Your task to perform on an android device: empty trash in google photos Image 0: 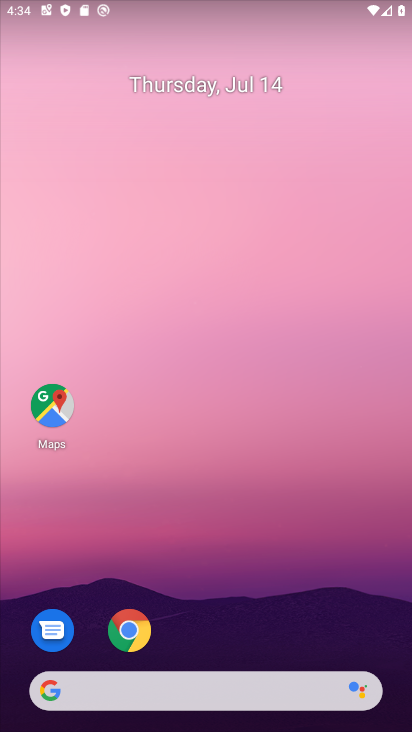
Step 0: drag from (323, 681) to (400, 5)
Your task to perform on an android device: empty trash in google photos Image 1: 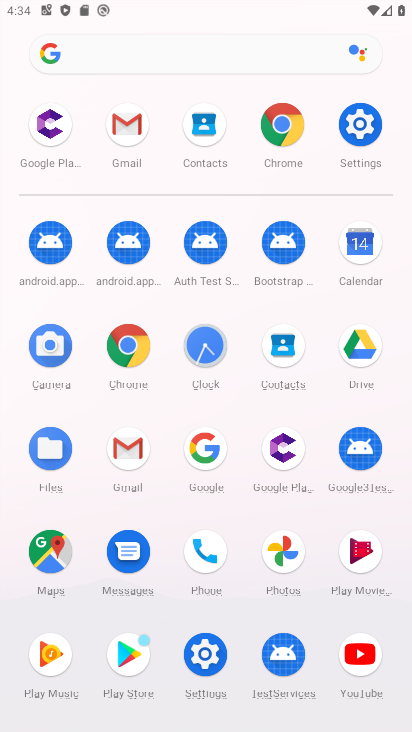
Step 1: click (288, 559)
Your task to perform on an android device: empty trash in google photos Image 2: 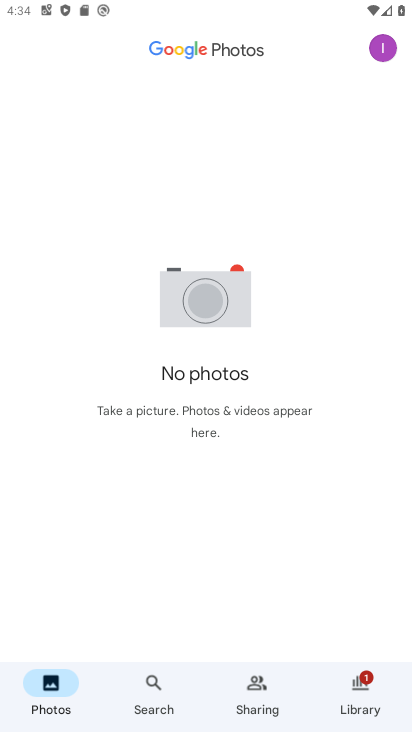
Step 2: click (389, 51)
Your task to perform on an android device: empty trash in google photos Image 3: 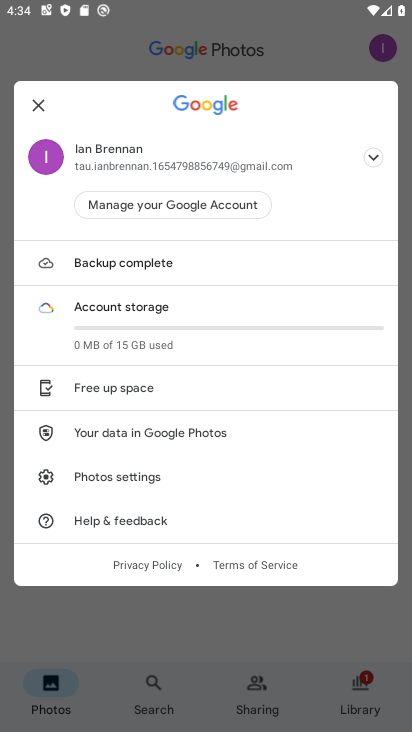
Step 3: click (211, 624)
Your task to perform on an android device: empty trash in google photos Image 4: 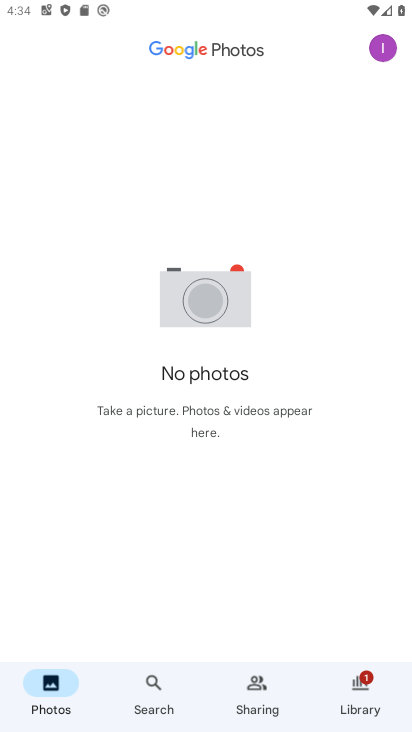
Step 4: click (246, 686)
Your task to perform on an android device: empty trash in google photos Image 5: 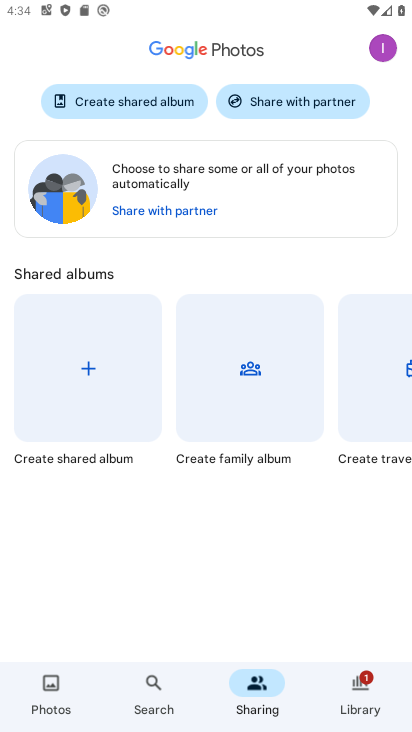
Step 5: click (377, 692)
Your task to perform on an android device: empty trash in google photos Image 6: 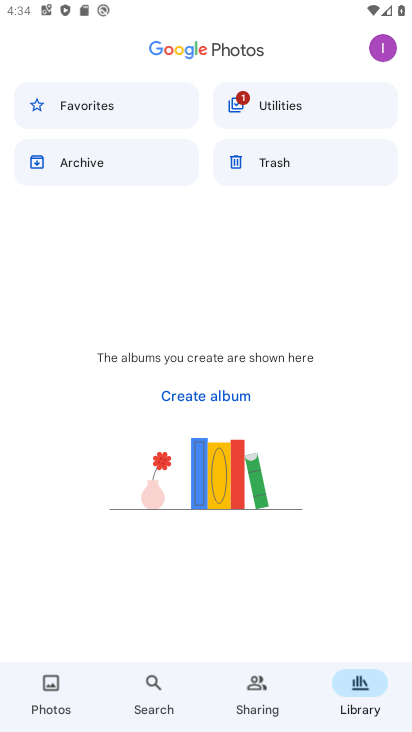
Step 6: click (307, 152)
Your task to perform on an android device: empty trash in google photos Image 7: 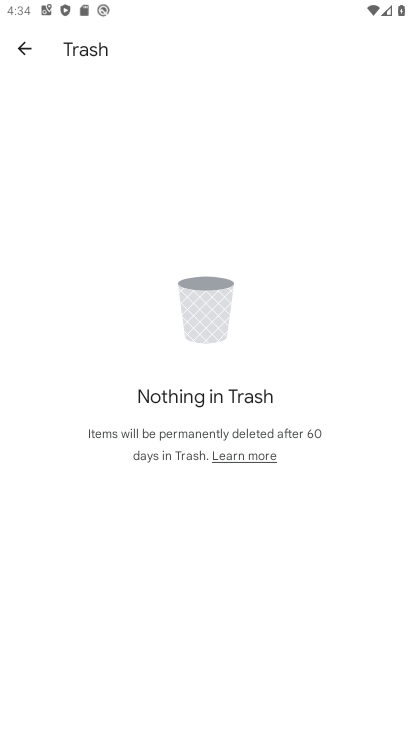
Step 7: task complete